Your task to perform on an android device: turn off location history Image 0: 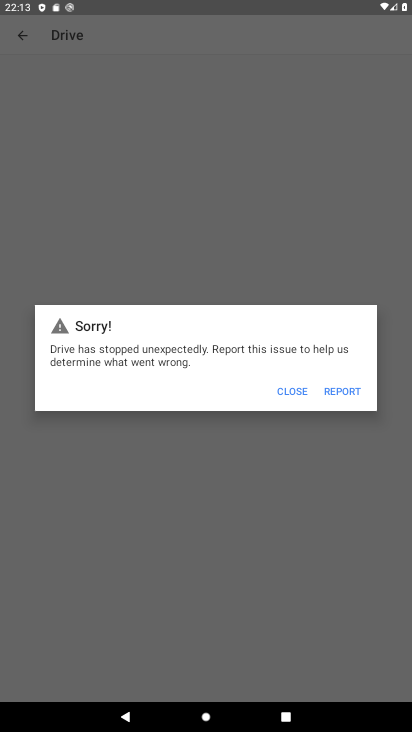
Step 0: press home button
Your task to perform on an android device: turn off location history Image 1: 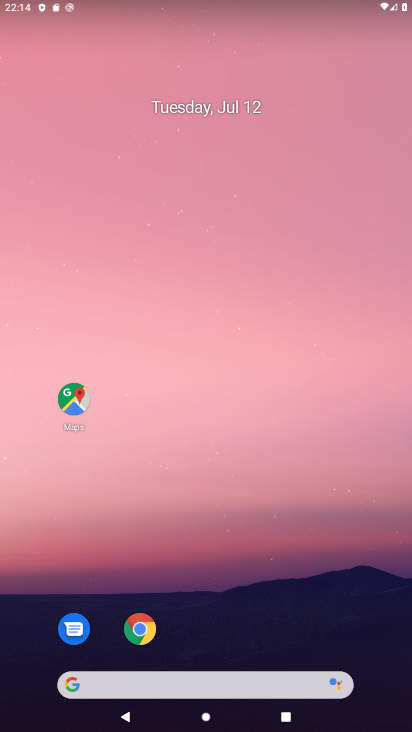
Step 1: drag from (321, 553) to (308, 45)
Your task to perform on an android device: turn off location history Image 2: 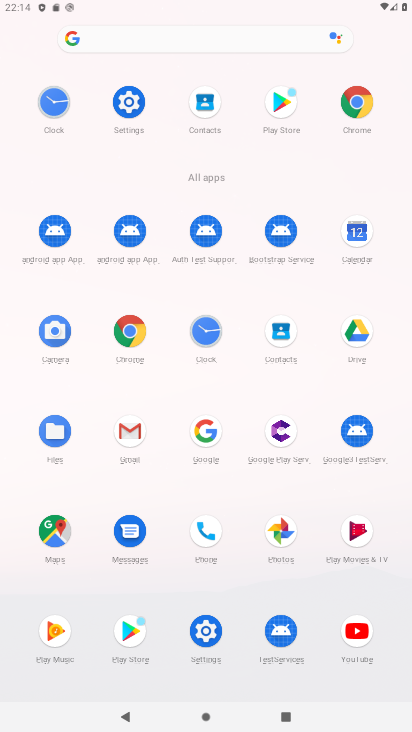
Step 2: click (54, 538)
Your task to perform on an android device: turn off location history Image 3: 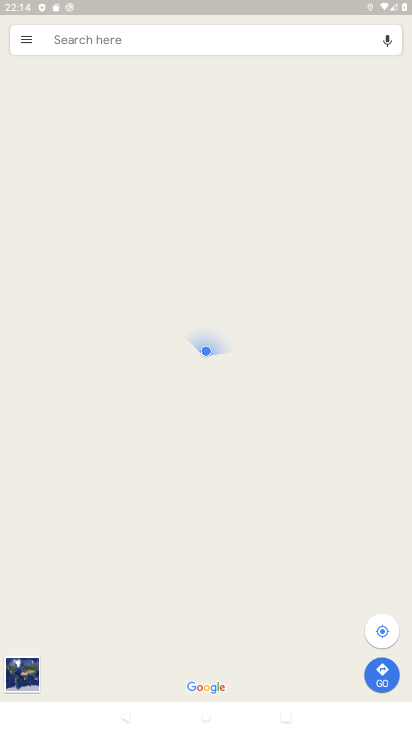
Step 3: click (19, 35)
Your task to perform on an android device: turn off location history Image 4: 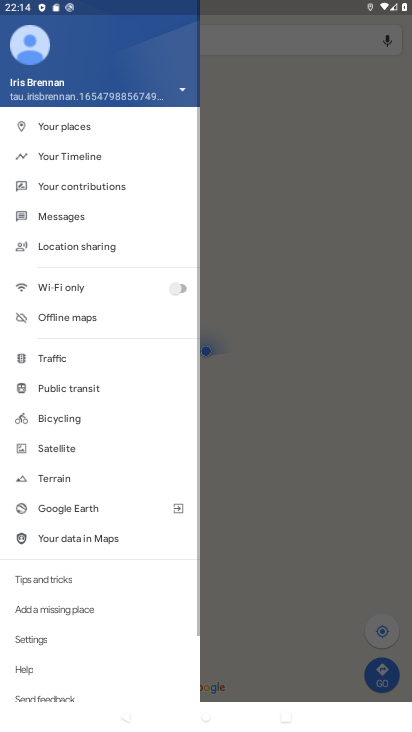
Step 4: click (70, 158)
Your task to perform on an android device: turn off location history Image 5: 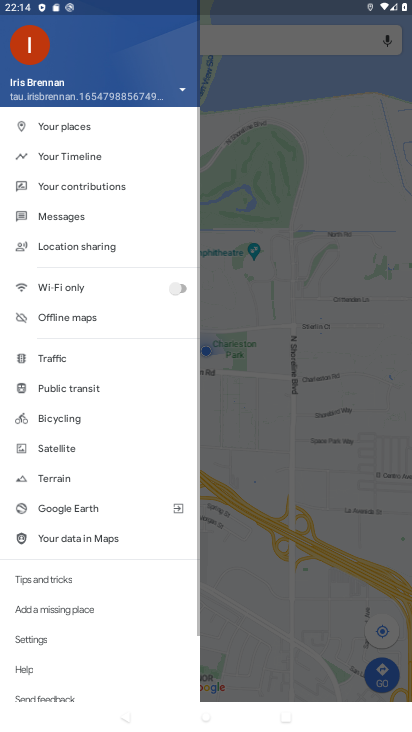
Step 5: click (70, 158)
Your task to perform on an android device: turn off location history Image 6: 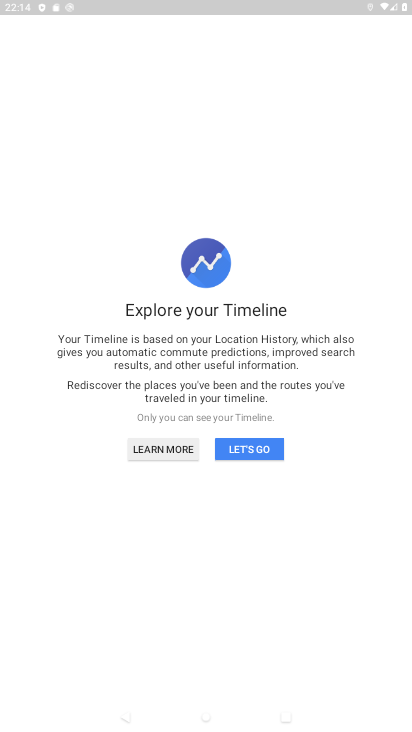
Step 6: click (240, 442)
Your task to perform on an android device: turn off location history Image 7: 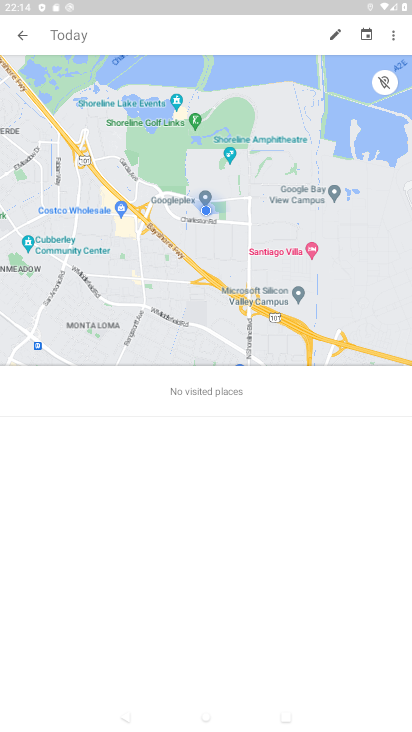
Step 7: click (395, 27)
Your task to perform on an android device: turn off location history Image 8: 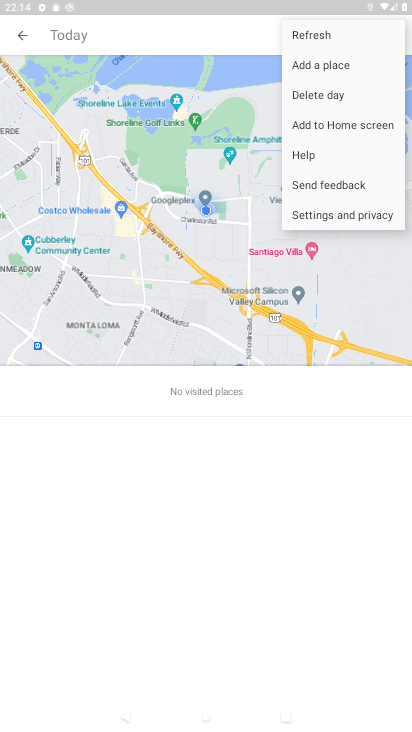
Step 8: click (366, 223)
Your task to perform on an android device: turn off location history Image 9: 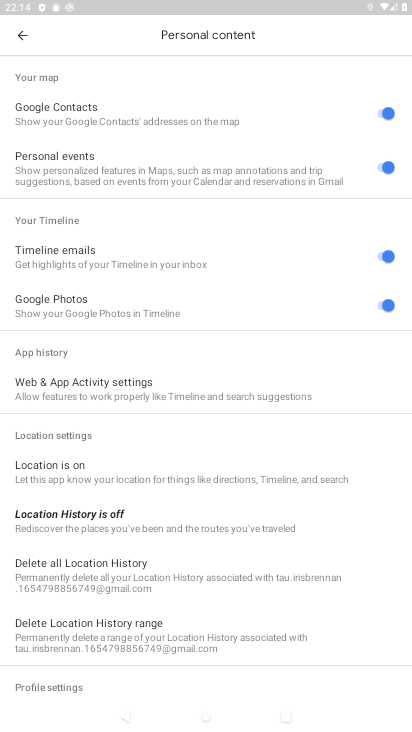
Step 9: click (60, 515)
Your task to perform on an android device: turn off location history Image 10: 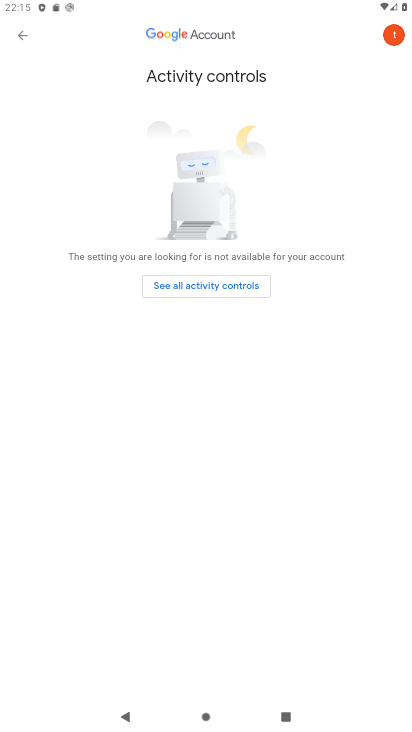
Step 10: click (212, 285)
Your task to perform on an android device: turn off location history Image 11: 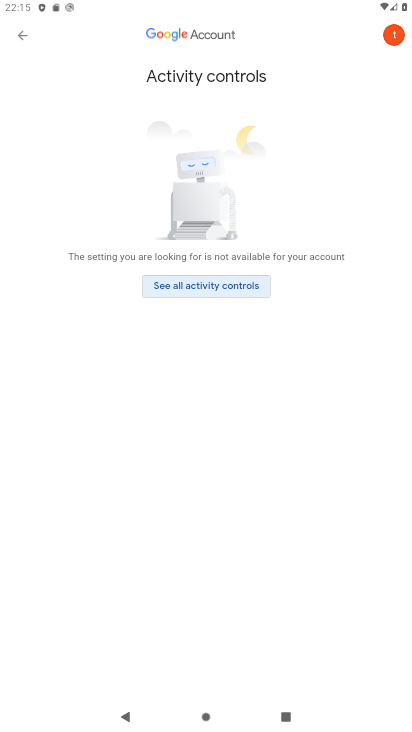
Step 11: click (12, 34)
Your task to perform on an android device: turn off location history Image 12: 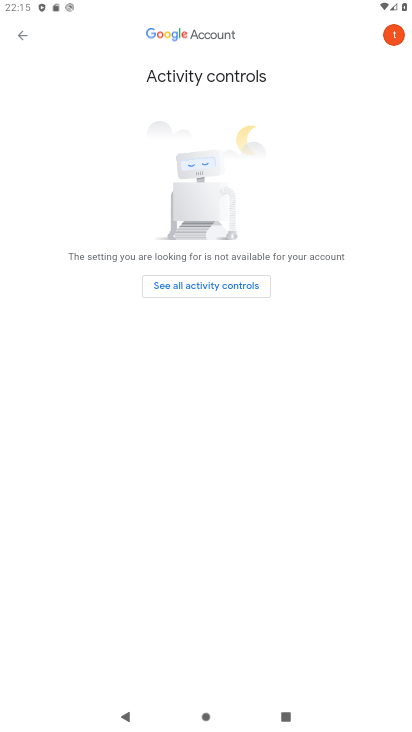
Step 12: click (12, 34)
Your task to perform on an android device: turn off location history Image 13: 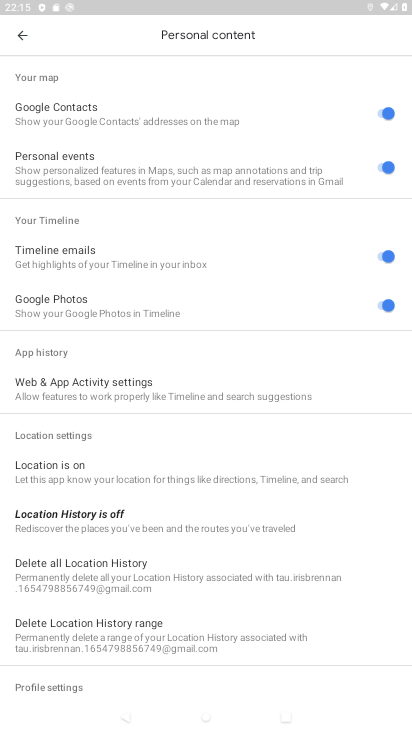
Step 13: click (64, 509)
Your task to perform on an android device: turn off location history Image 14: 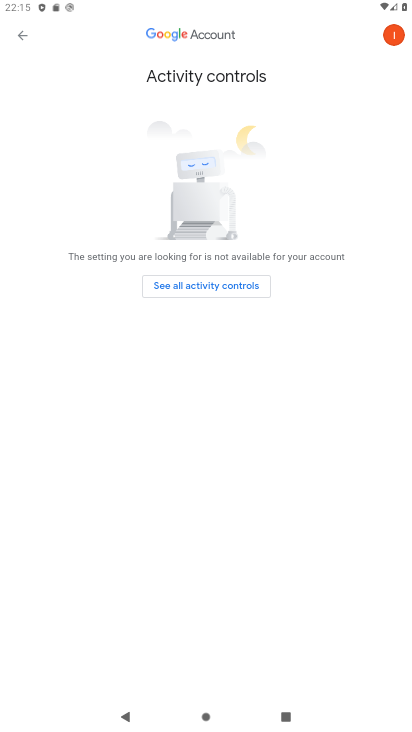
Step 14: task complete